Your task to perform on an android device: check out phone information Image 0: 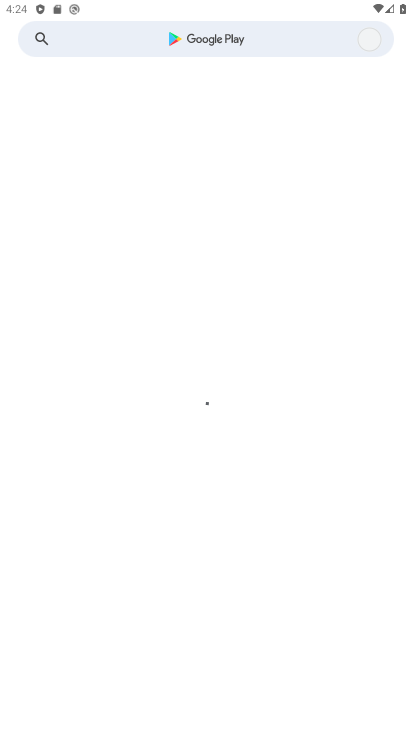
Step 0: press home button
Your task to perform on an android device: check out phone information Image 1: 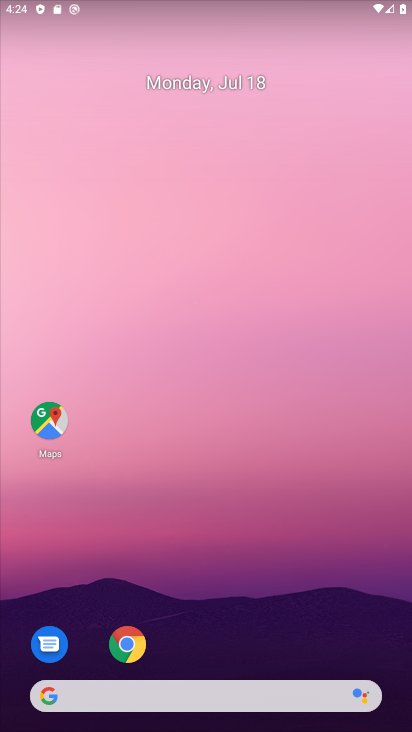
Step 1: drag from (267, 493) to (247, 126)
Your task to perform on an android device: check out phone information Image 2: 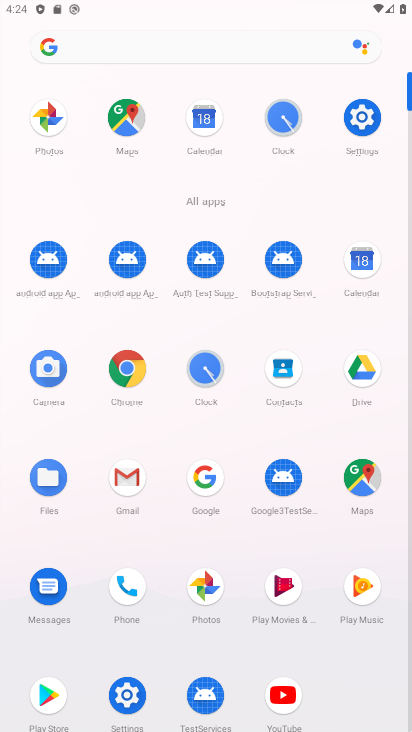
Step 2: click (366, 129)
Your task to perform on an android device: check out phone information Image 3: 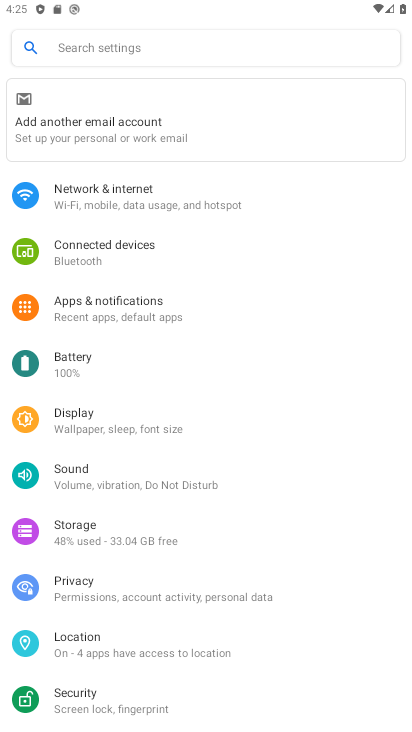
Step 3: drag from (212, 683) to (190, 262)
Your task to perform on an android device: check out phone information Image 4: 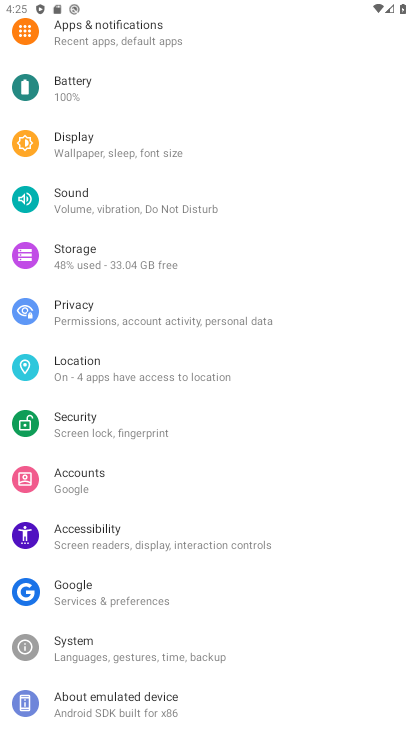
Step 4: click (183, 694)
Your task to perform on an android device: check out phone information Image 5: 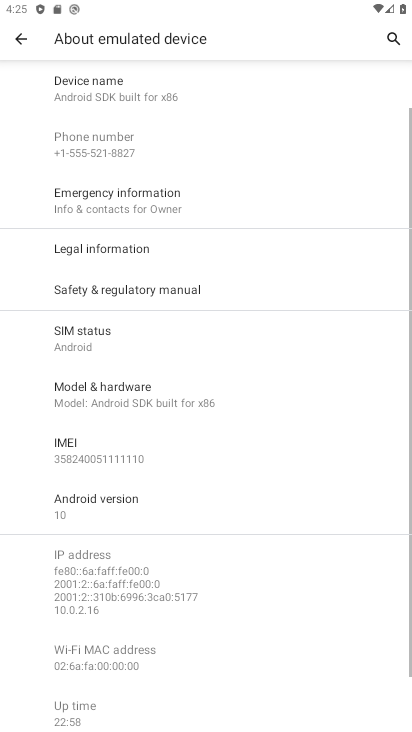
Step 5: task complete